Your task to perform on an android device: Open the calendar app, open the side menu, and click the "Day" option Image 0: 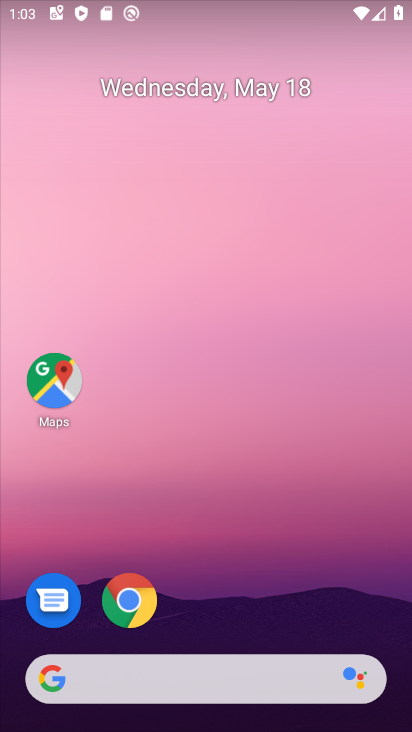
Step 0: drag from (254, 605) to (237, 51)
Your task to perform on an android device: Open the calendar app, open the side menu, and click the "Day" option Image 1: 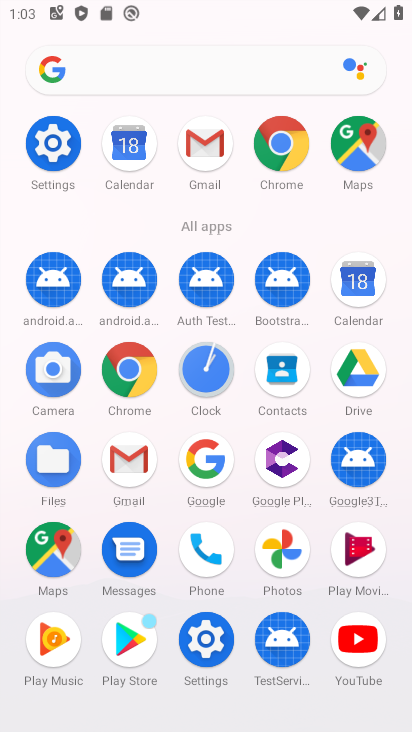
Step 1: click (359, 284)
Your task to perform on an android device: Open the calendar app, open the side menu, and click the "Day" option Image 2: 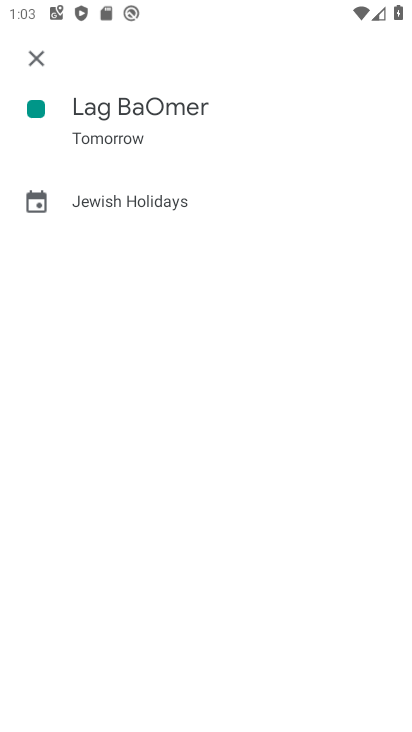
Step 2: click (32, 56)
Your task to perform on an android device: Open the calendar app, open the side menu, and click the "Day" option Image 3: 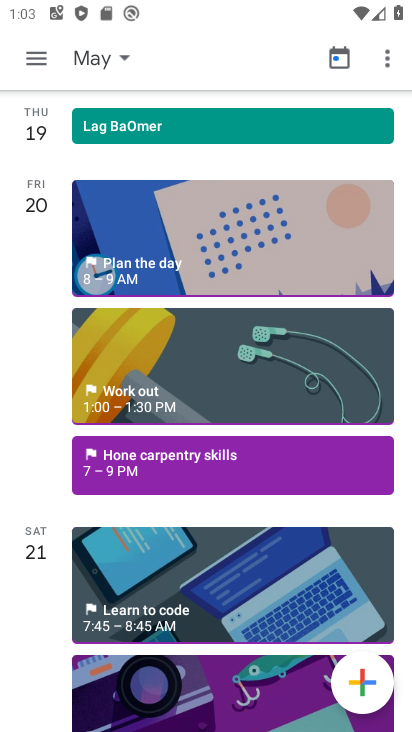
Step 3: click (30, 57)
Your task to perform on an android device: Open the calendar app, open the side menu, and click the "Day" option Image 4: 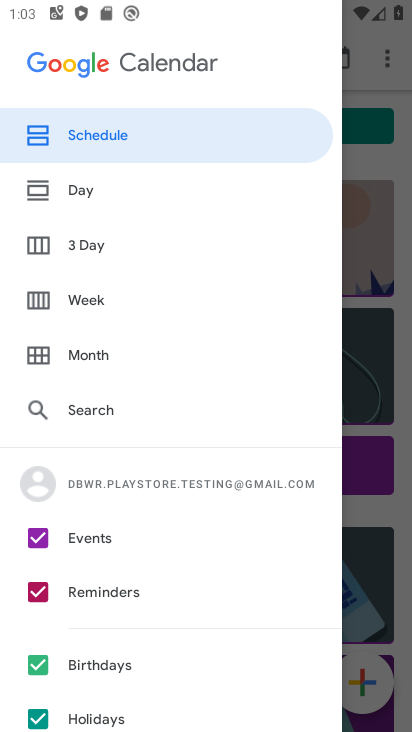
Step 4: click (85, 195)
Your task to perform on an android device: Open the calendar app, open the side menu, and click the "Day" option Image 5: 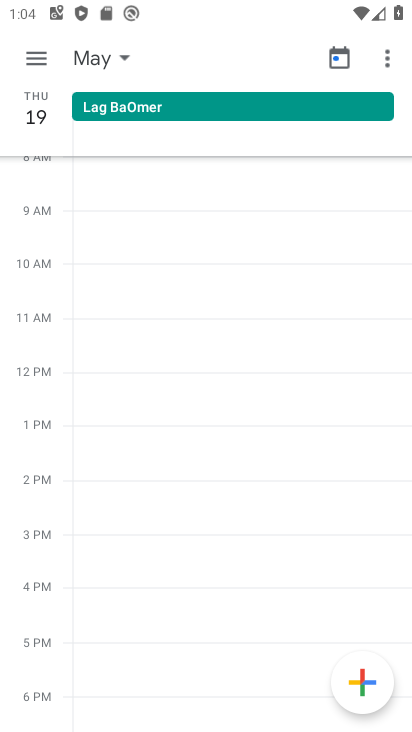
Step 5: task complete